Your task to perform on an android device: Open network settings Image 0: 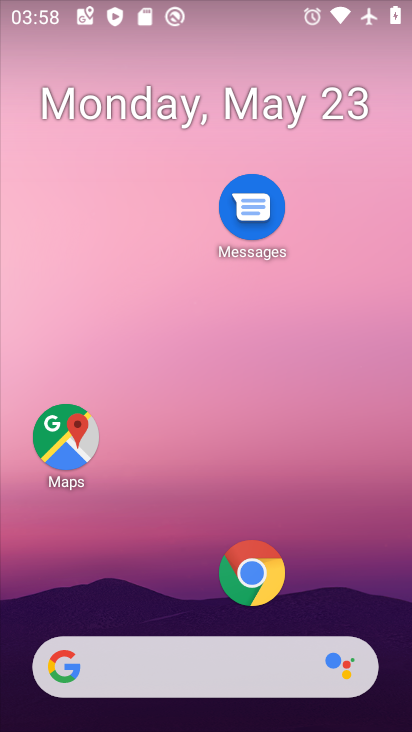
Step 0: drag from (327, 609) to (368, 80)
Your task to perform on an android device: Open network settings Image 1: 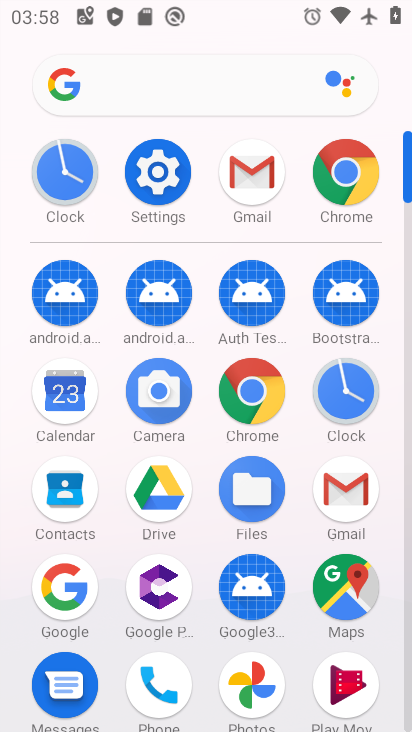
Step 1: click (159, 174)
Your task to perform on an android device: Open network settings Image 2: 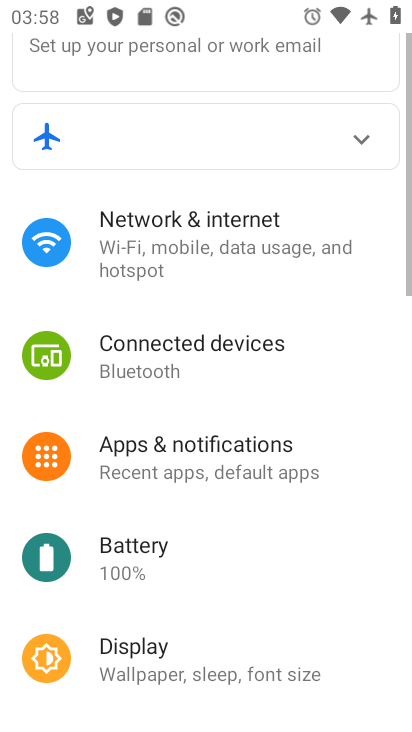
Step 2: click (241, 226)
Your task to perform on an android device: Open network settings Image 3: 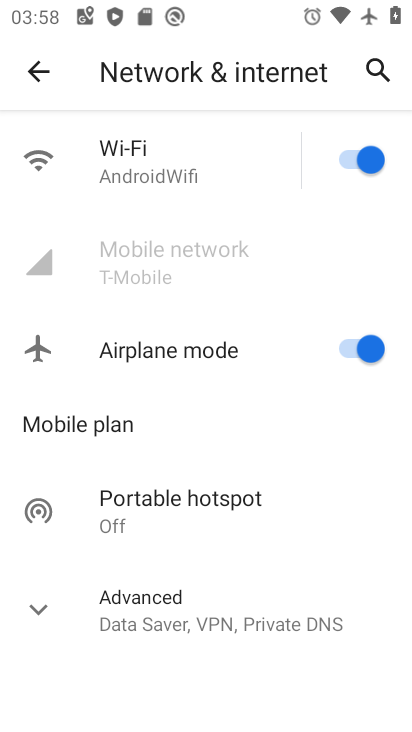
Step 3: click (163, 164)
Your task to perform on an android device: Open network settings Image 4: 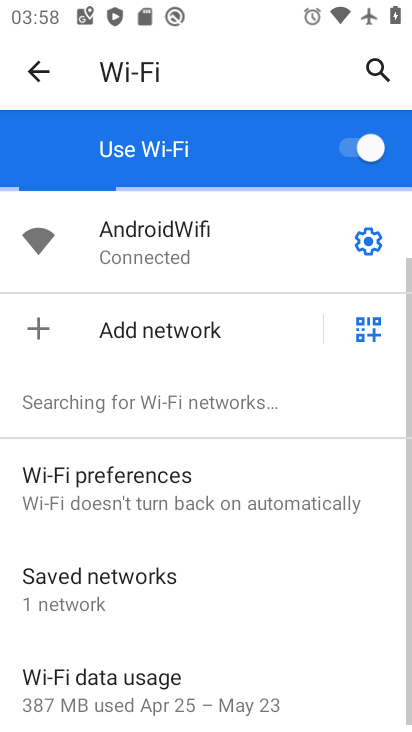
Step 4: task complete